Your task to perform on an android device: change the clock style Image 0: 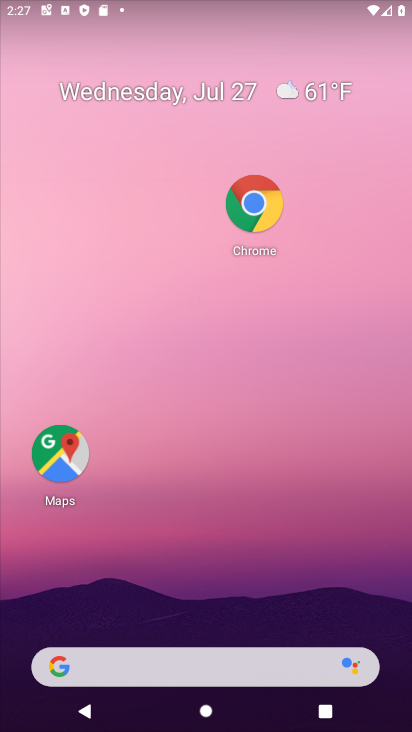
Step 0: drag from (202, 553) to (190, 292)
Your task to perform on an android device: change the clock style Image 1: 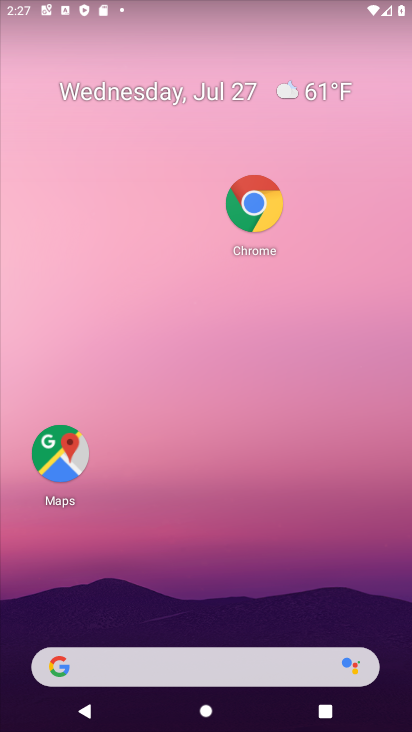
Step 1: drag from (201, 583) to (211, 219)
Your task to perform on an android device: change the clock style Image 2: 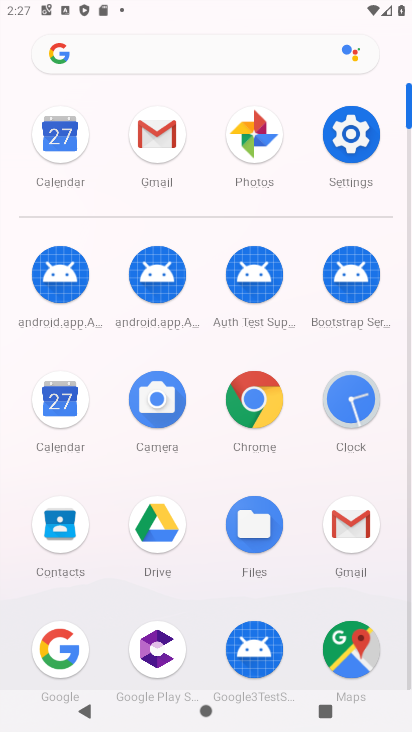
Step 2: click (334, 416)
Your task to perform on an android device: change the clock style Image 3: 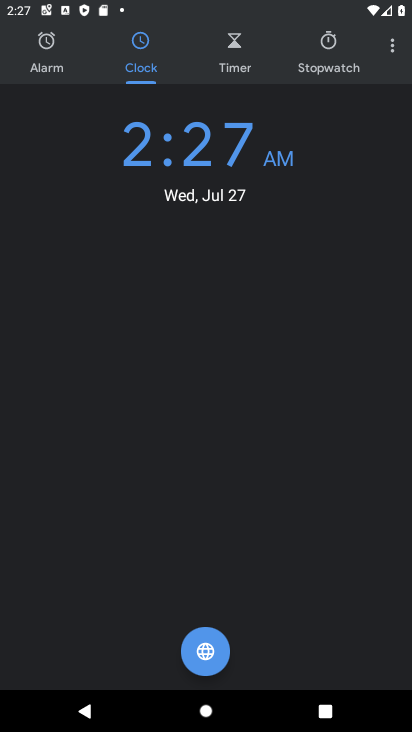
Step 3: click (395, 53)
Your task to perform on an android device: change the clock style Image 4: 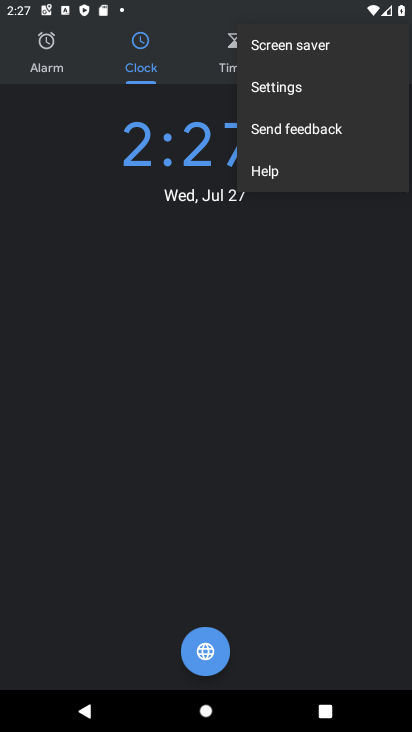
Step 4: click (316, 92)
Your task to perform on an android device: change the clock style Image 5: 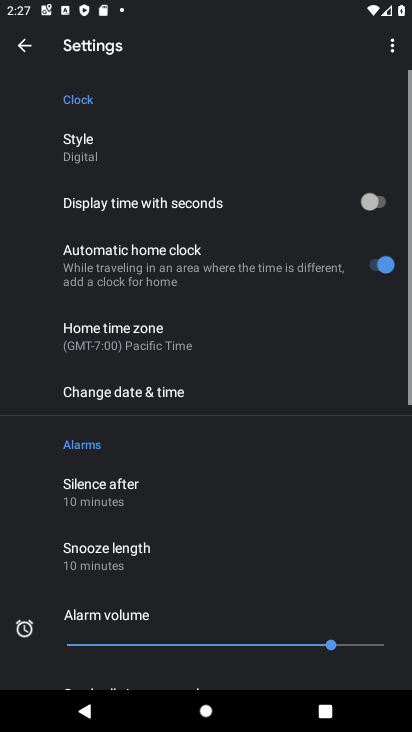
Step 5: click (89, 158)
Your task to perform on an android device: change the clock style Image 6: 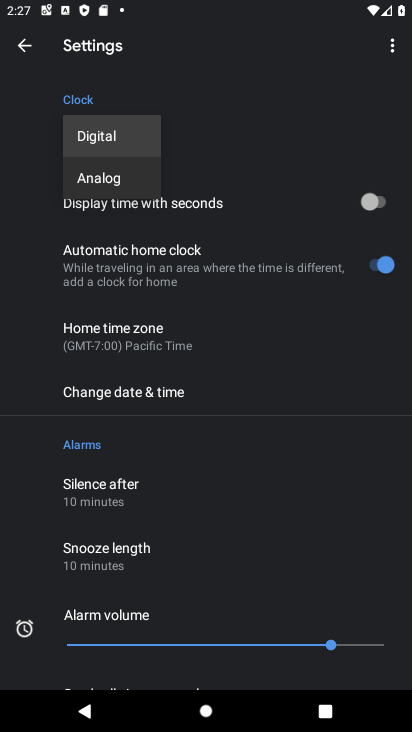
Step 6: click (129, 186)
Your task to perform on an android device: change the clock style Image 7: 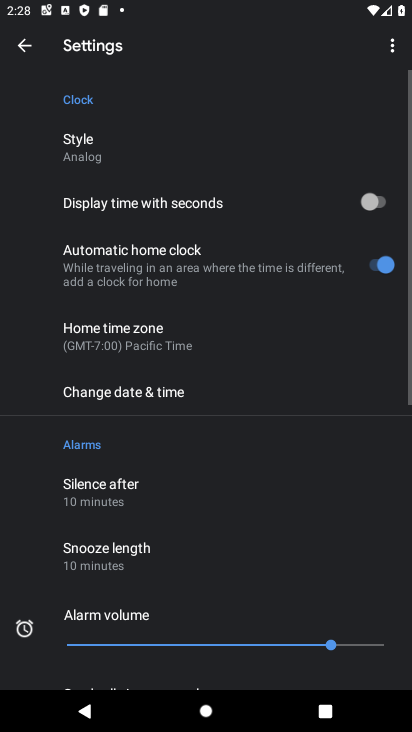
Step 7: task complete